Your task to perform on an android device: see sites visited before in the chrome app Image 0: 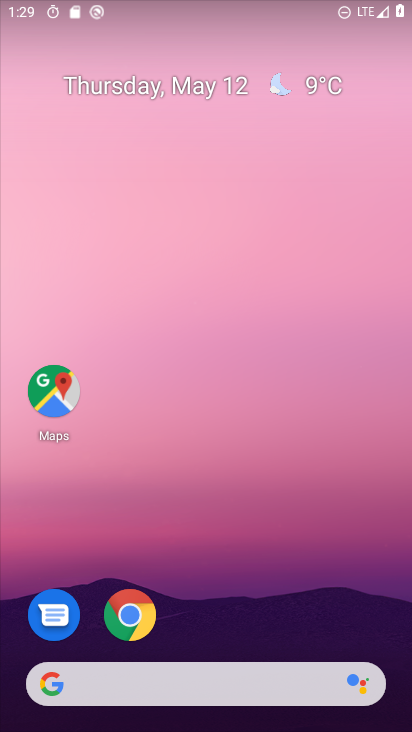
Step 0: drag from (251, 420) to (263, 33)
Your task to perform on an android device: see sites visited before in the chrome app Image 1: 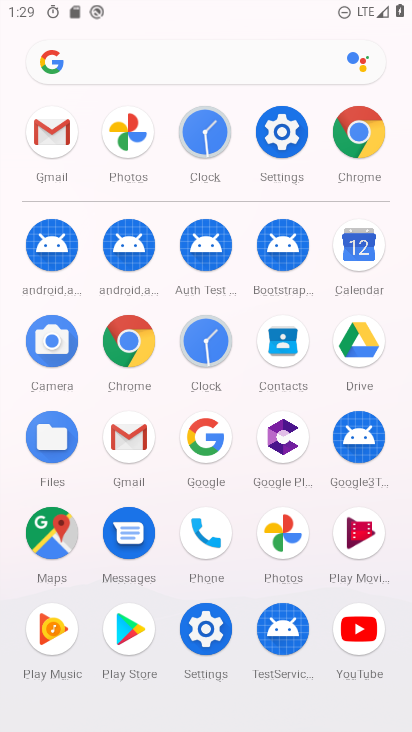
Step 1: click (129, 334)
Your task to perform on an android device: see sites visited before in the chrome app Image 2: 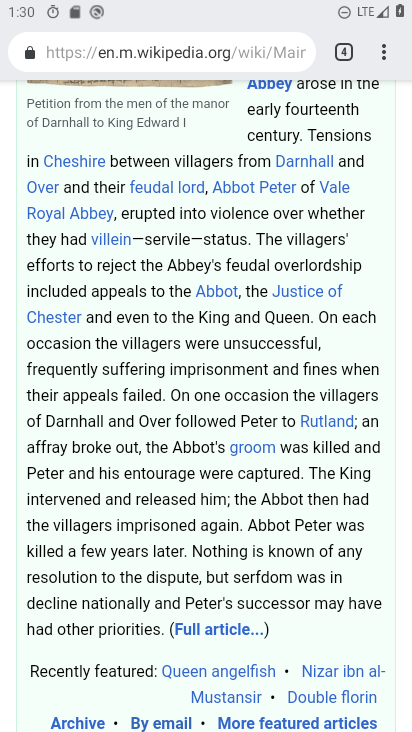
Step 2: task complete